Your task to perform on an android device: empty trash in google photos Image 0: 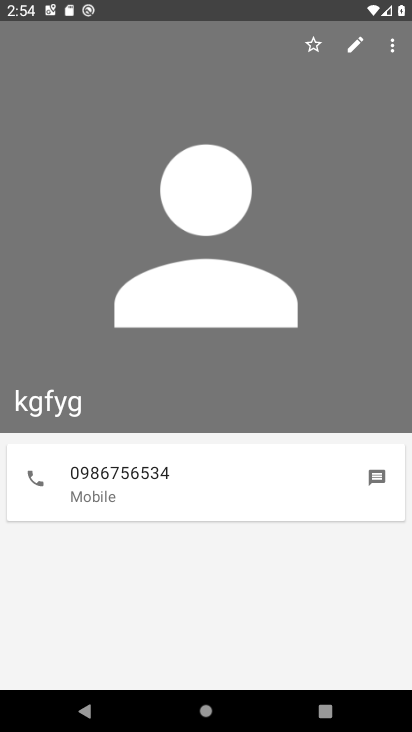
Step 0: press home button
Your task to perform on an android device: empty trash in google photos Image 1: 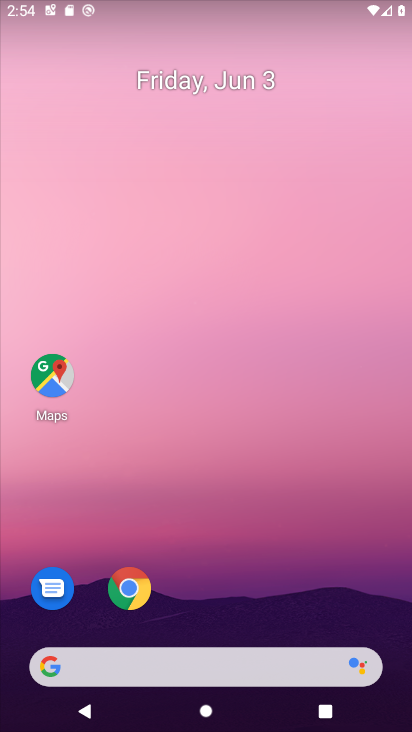
Step 1: drag from (175, 537) to (281, 36)
Your task to perform on an android device: empty trash in google photos Image 2: 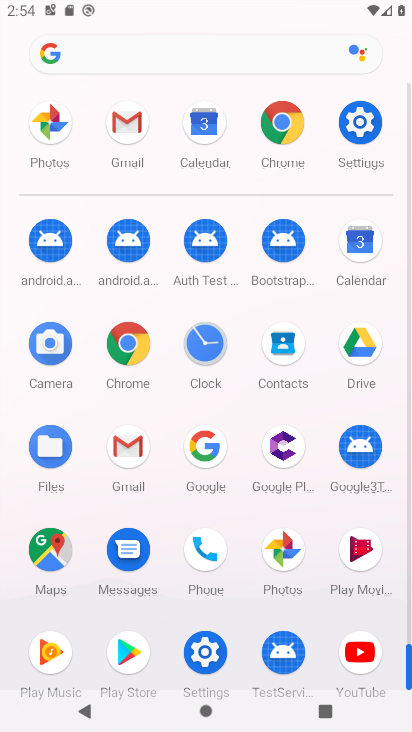
Step 2: drag from (205, 472) to (245, 211)
Your task to perform on an android device: empty trash in google photos Image 3: 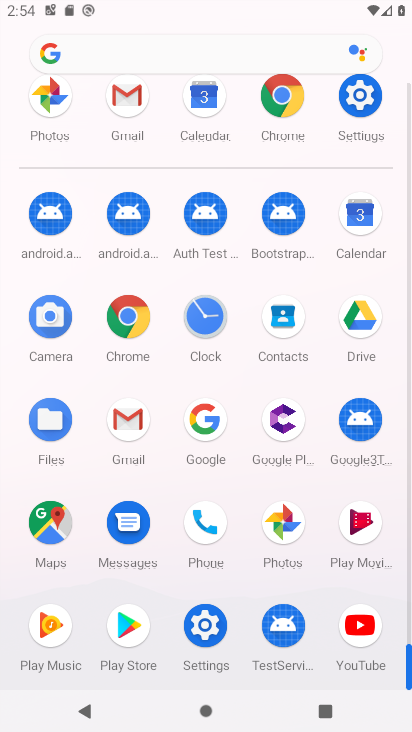
Step 3: click (287, 539)
Your task to perform on an android device: empty trash in google photos Image 4: 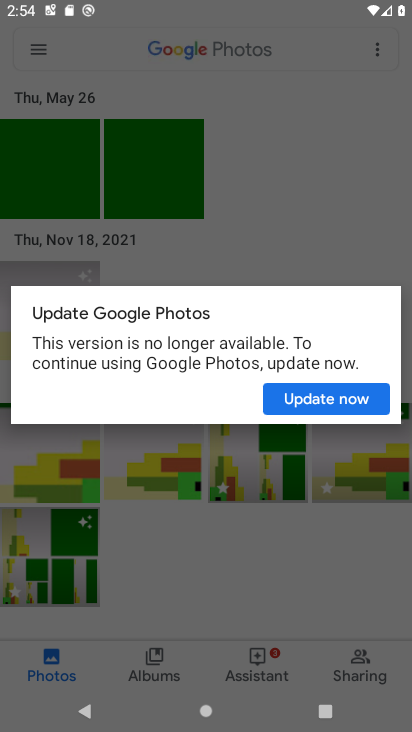
Step 4: task complete